Your task to perform on an android device: Search for sushi restaurants on Maps Image 0: 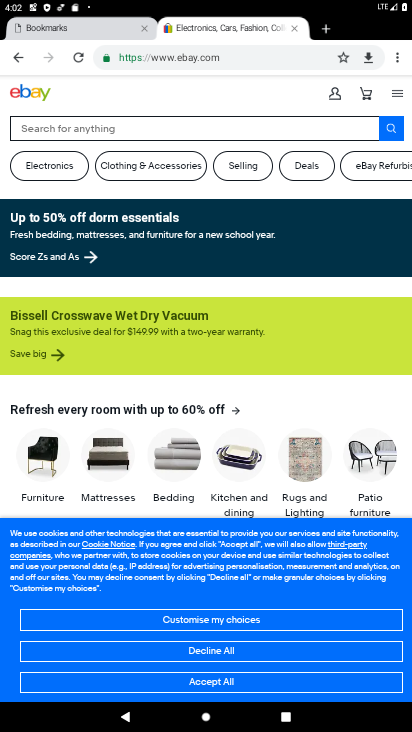
Step 0: press home button
Your task to perform on an android device: Search for sushi restaurants on Maps Image 1: 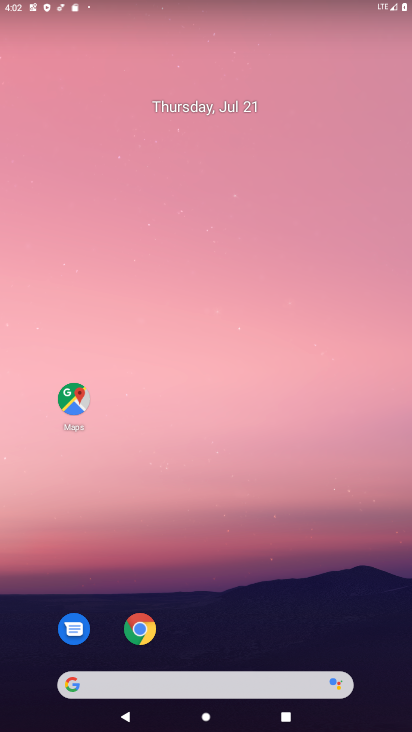
Step 1: click (73, 402)
Your task to perform on an android device: Search for sushi restaurants on Maps Image 2: 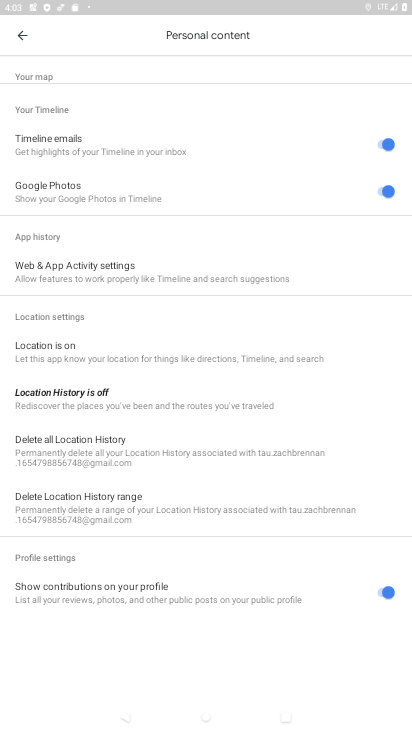
Step 2: click (18, 35)
Your task to perform on an android device: Search for sushi restaurants on Maps Image 3: 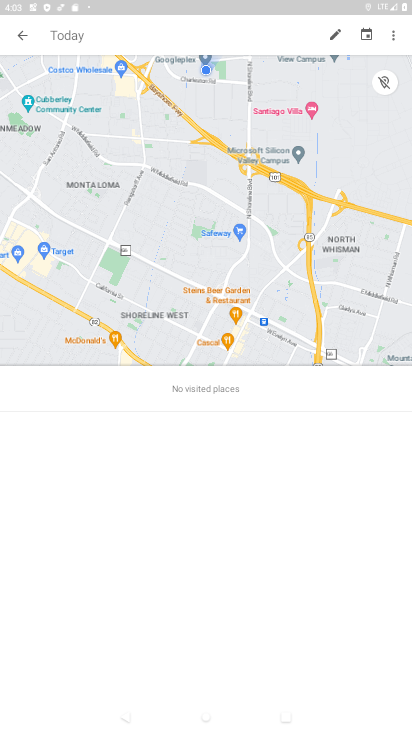
Step 3: click (22, 37)
Your task to perform on an android device: Search for sushi restaurants on Maps Image 4: 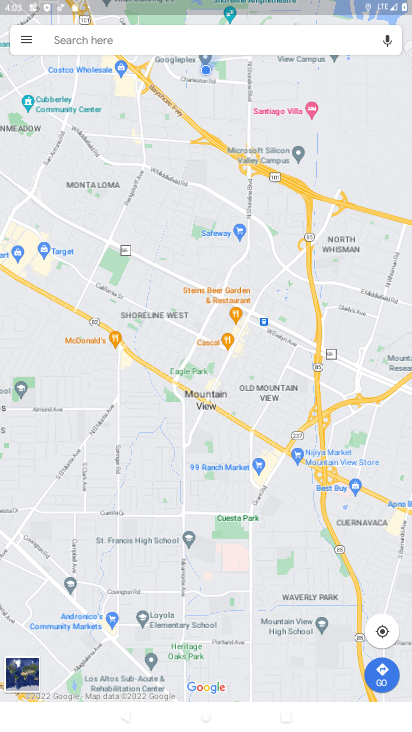
Step 4: click (72, 41)
Your task to perform on an android device: Search for sushi restaurants on Maps Image 5: 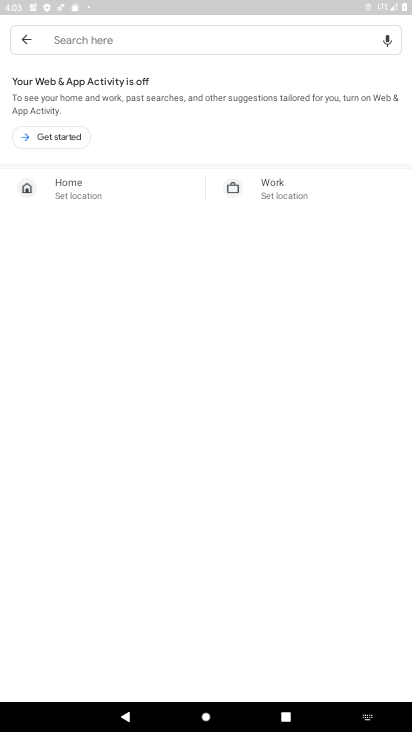
Step 5: type "sushi restaurants"
Your task to perform on an android device: Search for sushi restaurants on Maps Image 6: 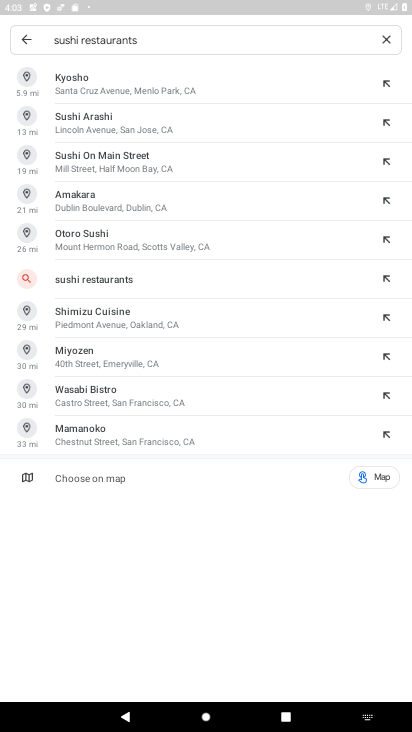
Step 6: click (159, 282)
Your task to perform on an android device: Search for sushi restaurants on Maps Image 7: 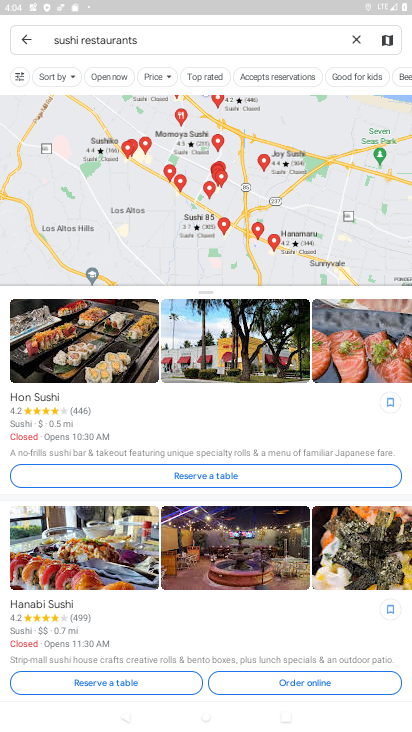
Step 7: task complete